Your task to perform on an android device: Open notification settings Image 0: 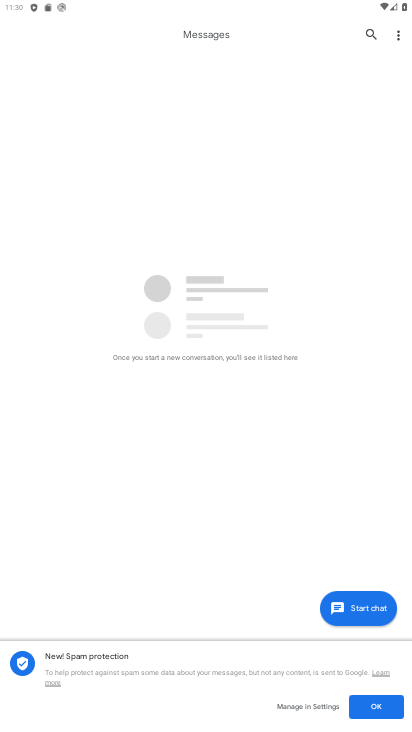
Step 0: press home button
Your task to perform on an android device: Open notification settings Image 1: 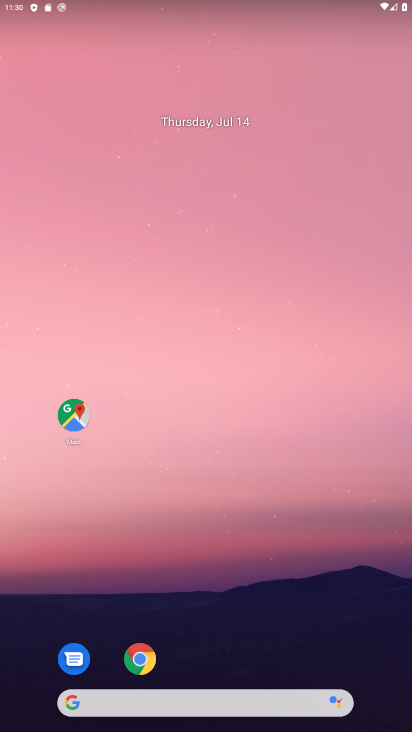
Step 1: drag from (227, 650) to (293, 23)
Your task to perform on an android device: Open notification settings Image 2: 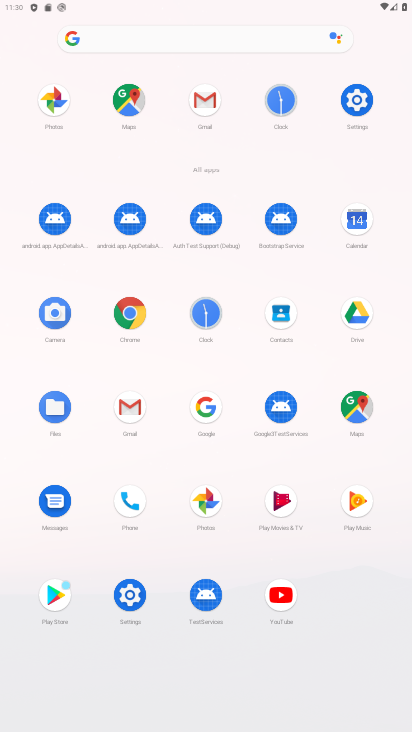
Step 2: click (358, 106)
Your task to perform on an android device: Open notification settings Image 3: 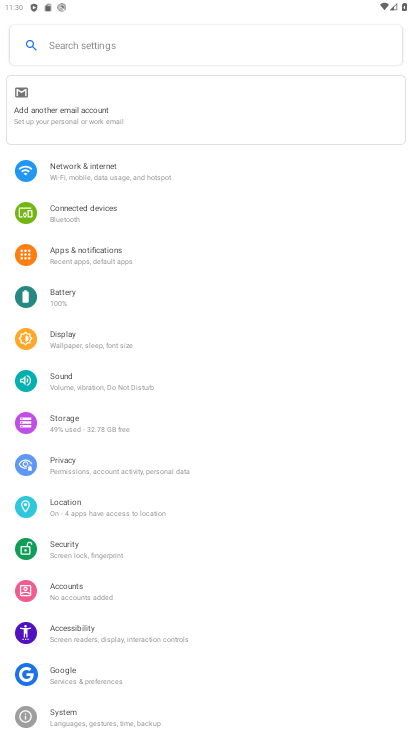
Step 3: click (72, 261)
Your task to perform on an android device: Open notification settings Image 4: 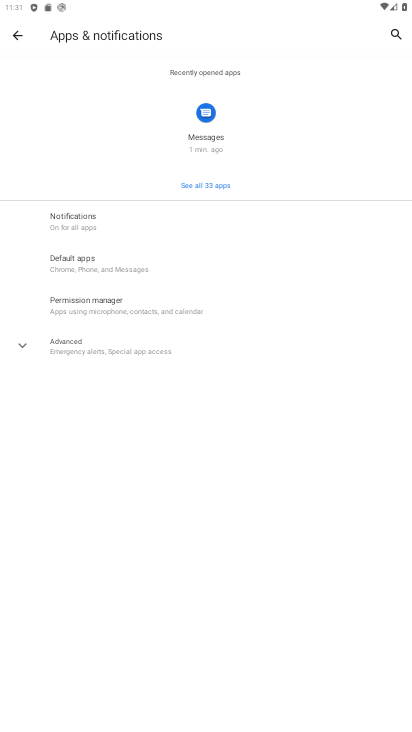
Step 4: task complete